Your task to perform on an android device: change timer sound Image 0: 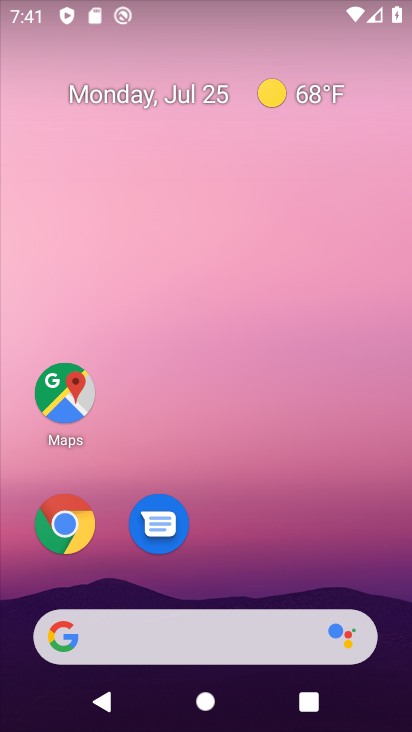
Step 0: drag from (295, 539) to (260, 42)
Your task to perform on an android device: change timer sound Image 1: 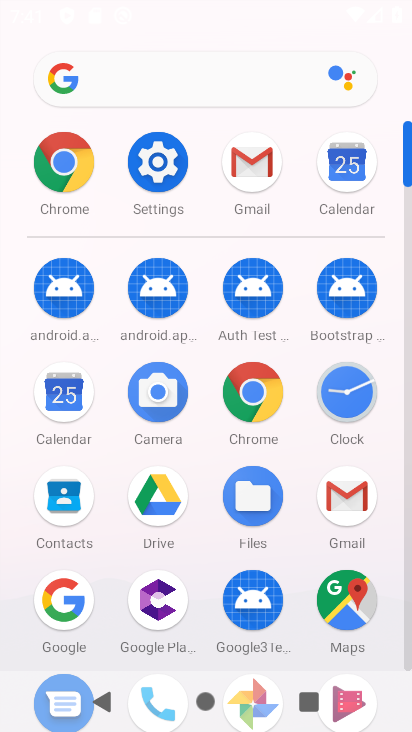
Step 1: click (335, 389)
Your task to perform on an android device: change timer sound Image 2: 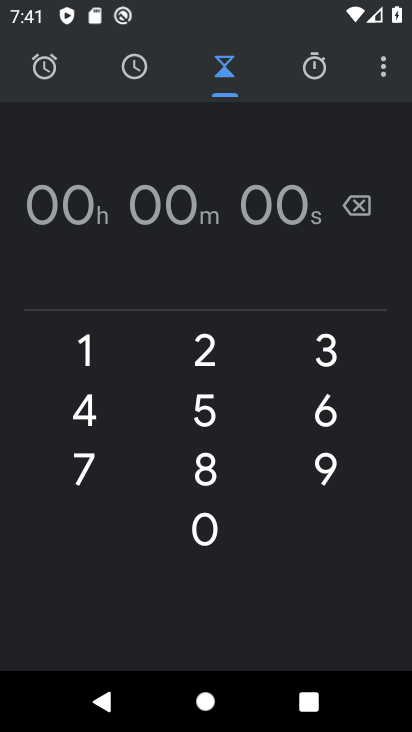
Step 2: click (379, 69)
Your task to perform on an android device: change timer sound Image 3: 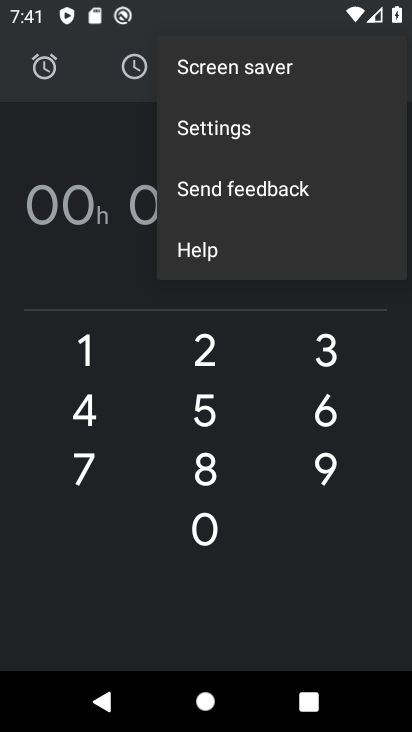
Step 3: click (245, 126)
Your task to perform on an android device: change timer sound Image 4: 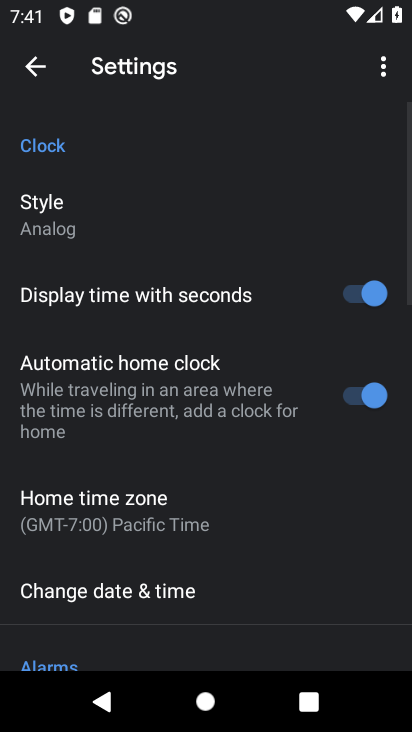
Step 4: drag from (180, 514) to (226, 6)
Your task to perform on an android device: change timer sound Image 5: 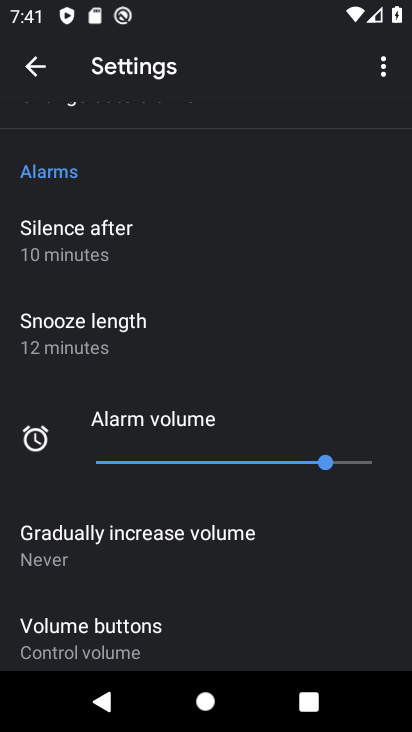
Step 5: drag from (230, 565) to (270, 58)
Your task to perform on an android device: change timer sound Image 6: 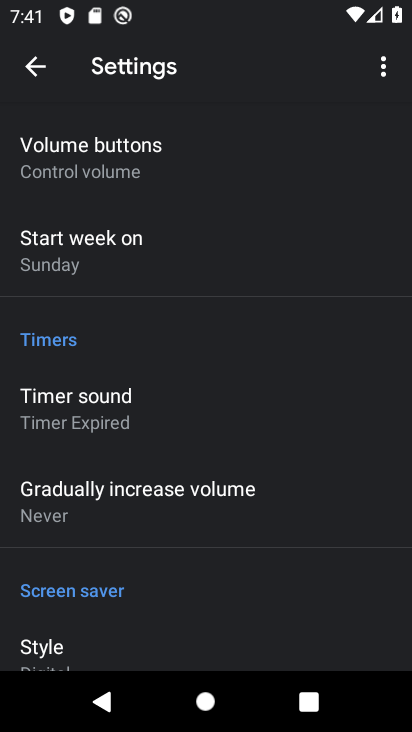
Step 6: click (101, 412)
Your task to perform on an android device: change timer sound Image 7: 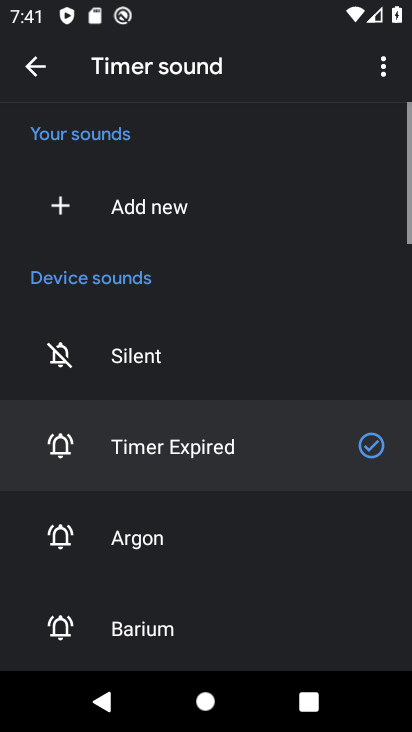
Step 7: click (97, 534)
Your task to perform on an android device: change timer sound Image 8: 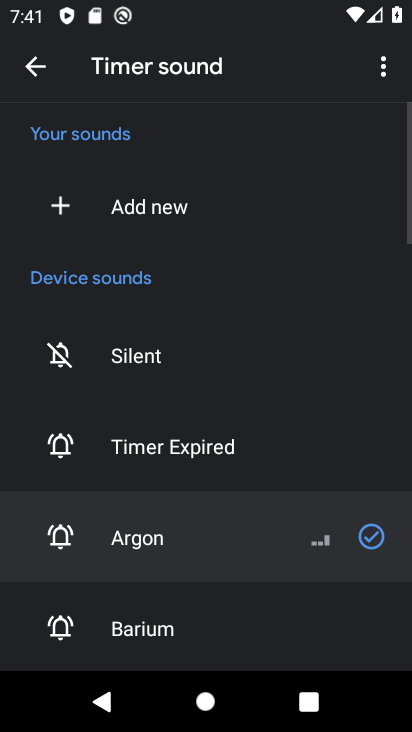
Step 8: task complete